Your task to perform on an android device: turn off wifi Image 0: 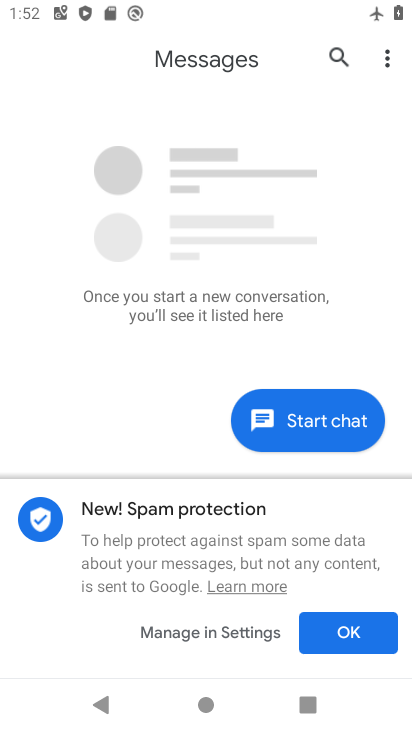
Step 0: press home button
Your task to perform on an android device: turn off wifi Image 1: 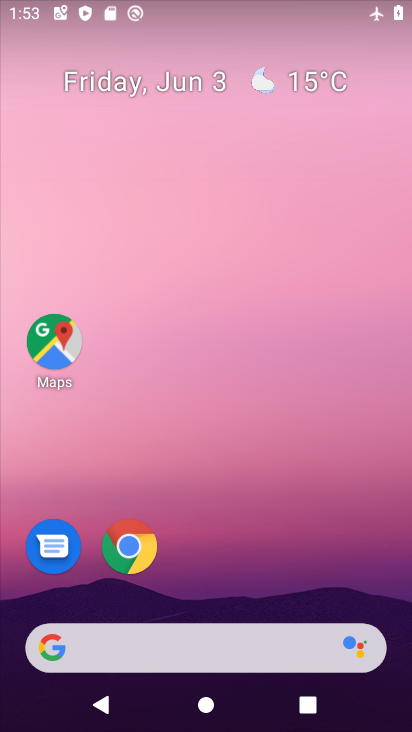
Step 1: drag from (277, 565) to (203, 7)
Your task to perform on an android device: turn off wifi Image 2: 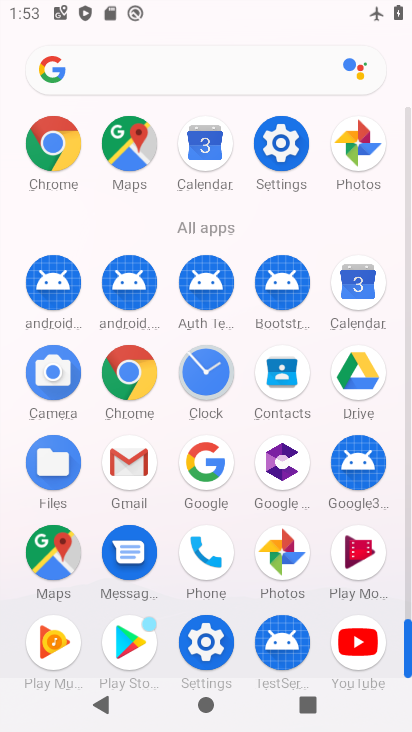
Step 2: click (284, 147)
Your task to perform on an android device: turn off wifi Image 3: 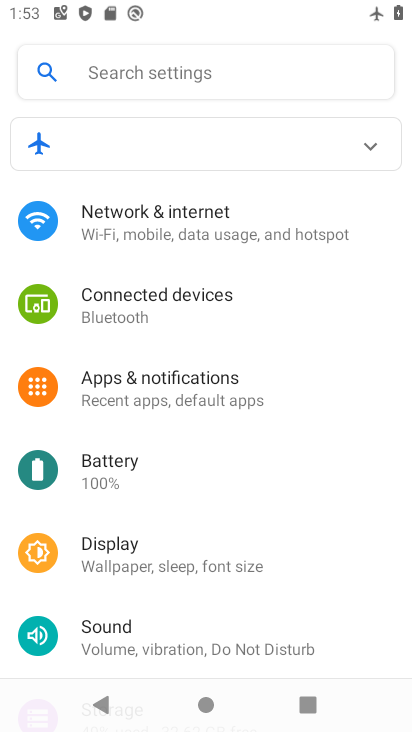
Step 3: click (245, 219)
Your task to perform on an android device: turn off wifi Image 4: 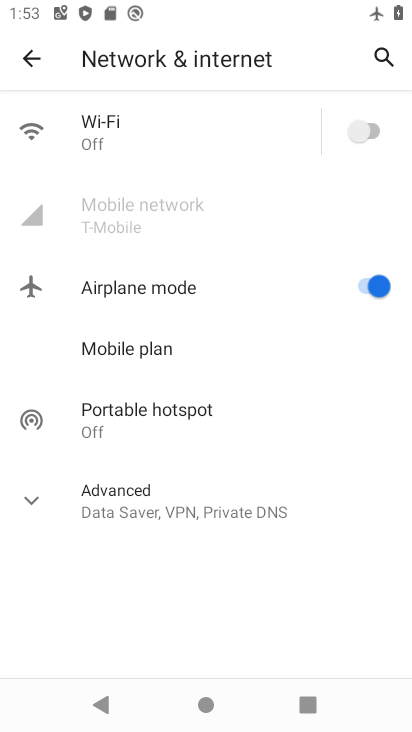
Step 4: task complete